Your task to perform on an android device: open chrome and create a bookmark for the current page Image 0: 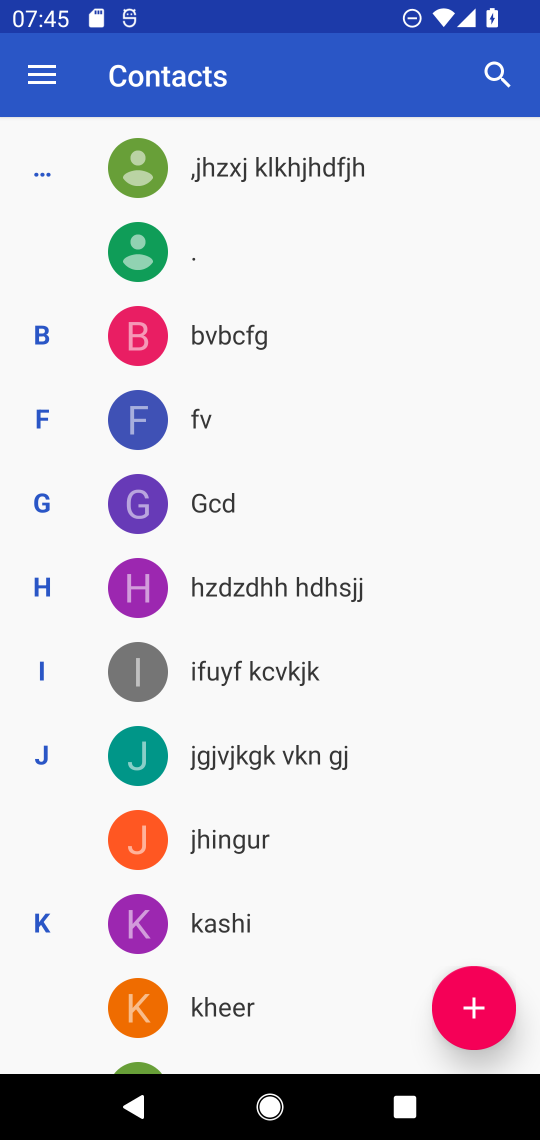
Step 0: press home button
Your task to perform on an android device: open chrome and create a bookmark for the current page Image 1: 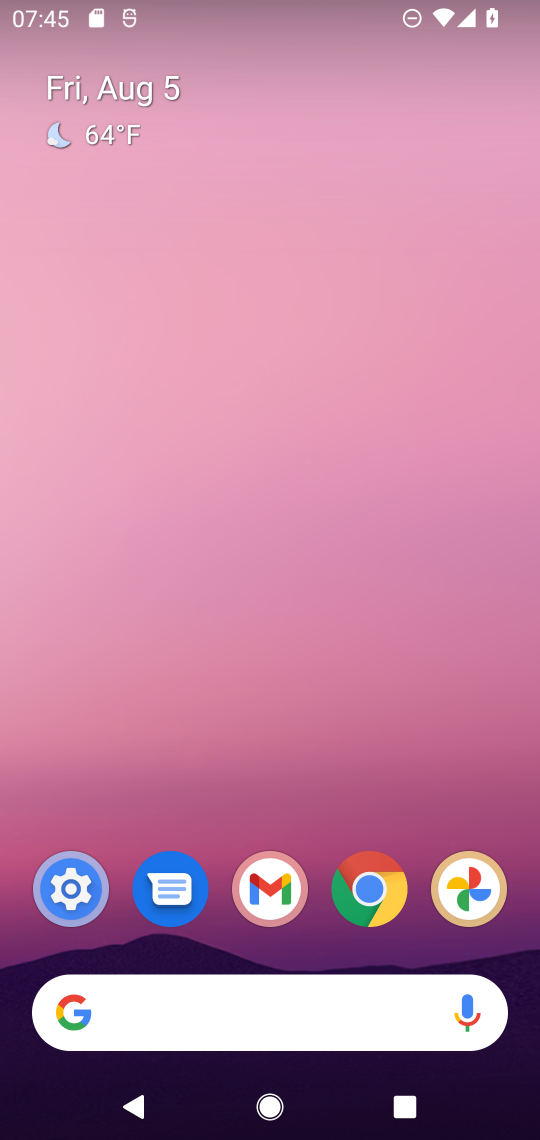
Step 1: click (361, 902)
Your task to perform on an android device: open chrome and create a bookmark for the current page Image 2: 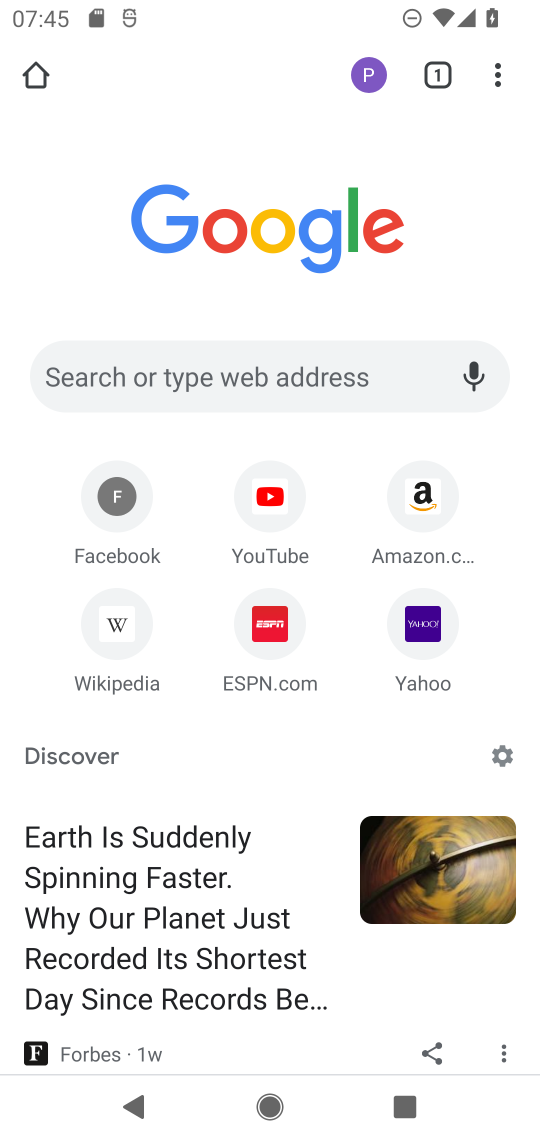
Step 2: click (493, 82)
Your task to perform on an android device: open chrome and create a bookmark for the current page Image 3: 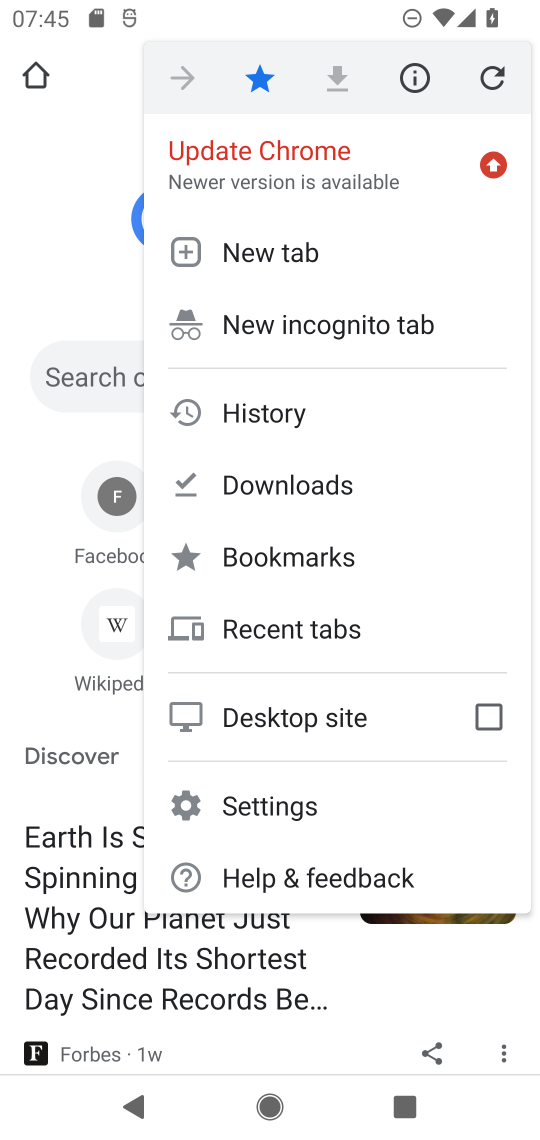
Step 3: task complete